Your task to perform on an android device: Open the stopwatch Image 0: 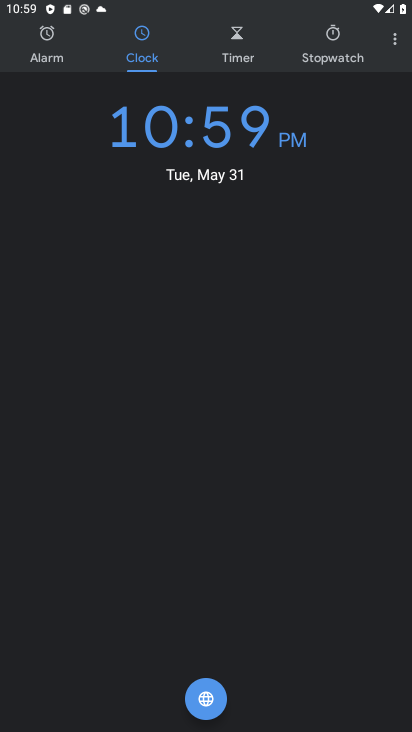
Step 0: click (325, 64)
Your task to perform on an android device: Open the stopwatch Image 1: 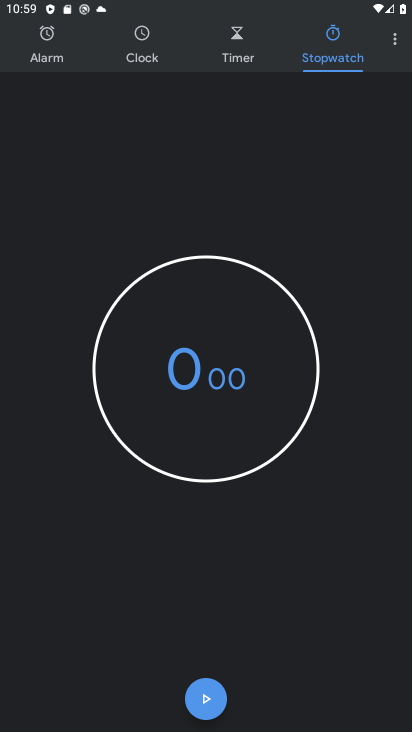
Step 1: task complete